Your task to perform on an android device: open sync settings in chrome Image 0: 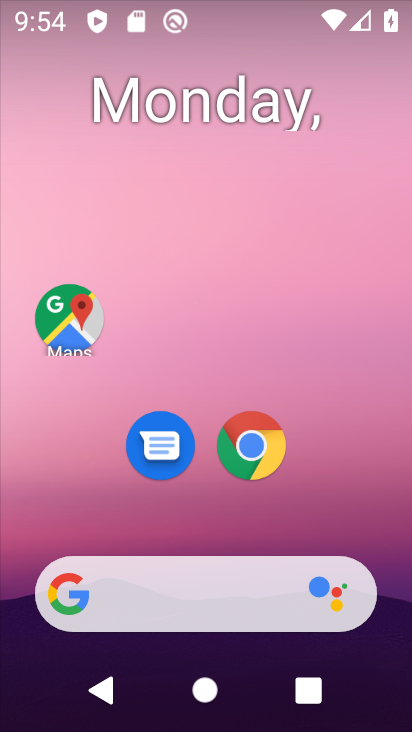
Step 0: drag from (331, 537) to (245, 100)
Your task to perform on an android device: open sync settings in chrome Image 1: 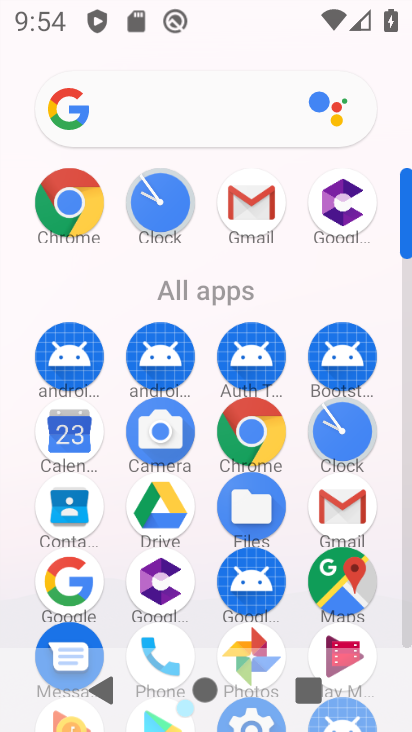
Step 1: click (260, 435)
Your task to perform on an android device: open sync settings in chrome Image 2: 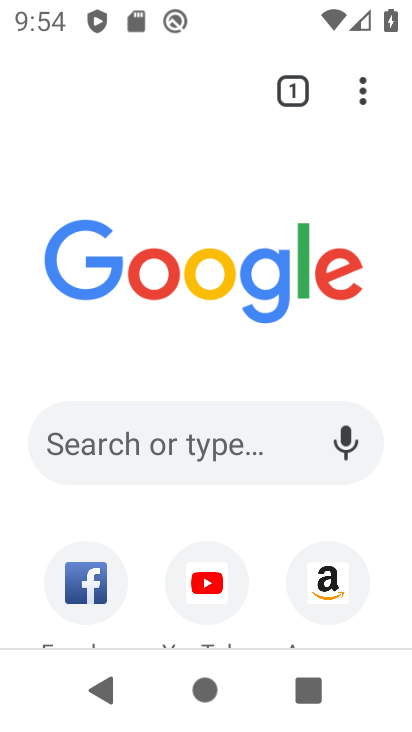
Step 2: drag from (382, 75) to (222, 474)
Your task to perform on an android device: open sync settings in chrome Image 3: 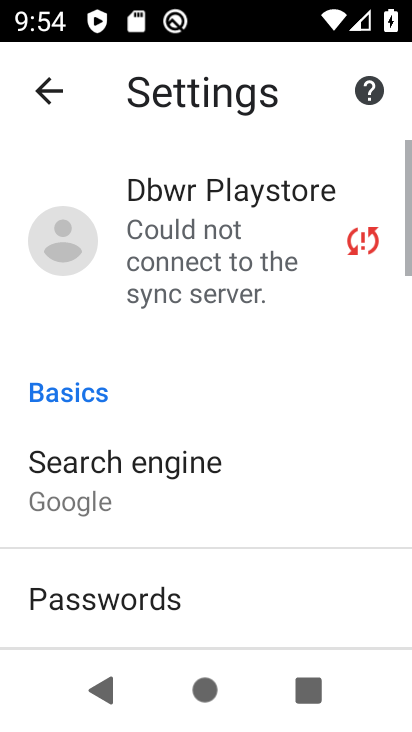
Step 3: drag from (222, 474) to (174, 105)
Your task to perform on an android device: open sync settings in chrome Image 4: 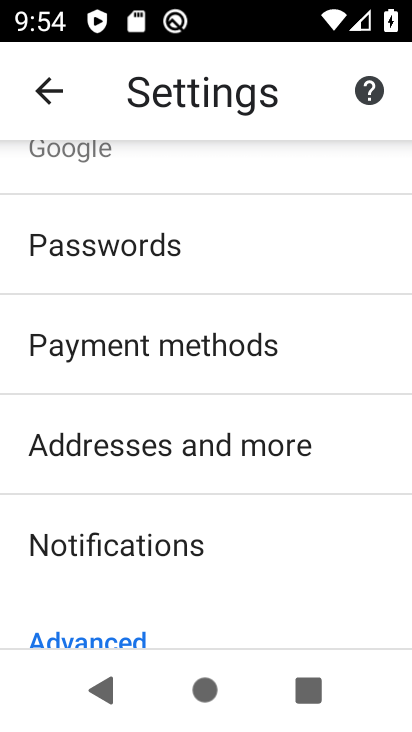
Step 4: drag from (252, 526) to (256, 184)
Your task to perform on an android device: open sync settings in chrome Image 5: 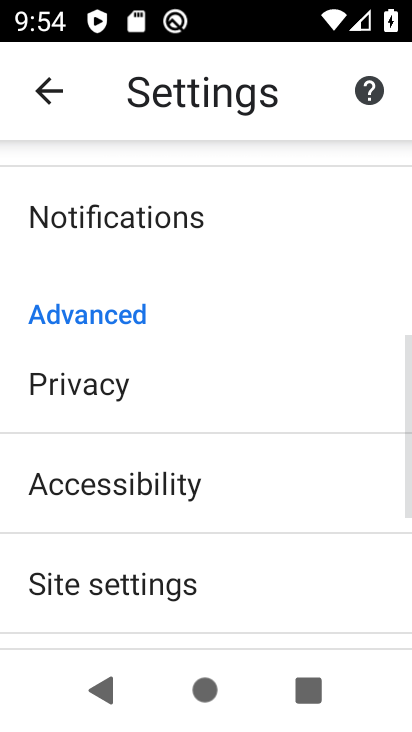
Step 5: drag from (237, 512) to (285, 193)
Your task to perform on an android device: open sync settings in chrome Image 6: 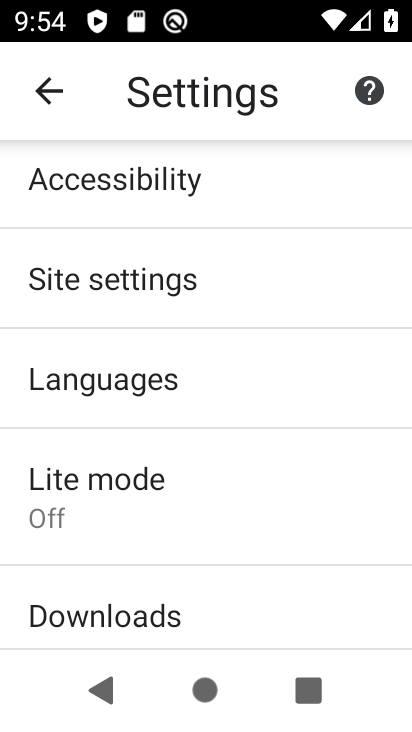
Step 6: drag from (240, 241) to (269, 677)
Your task to perform on an android device: open sync settings in chrome Image 7: 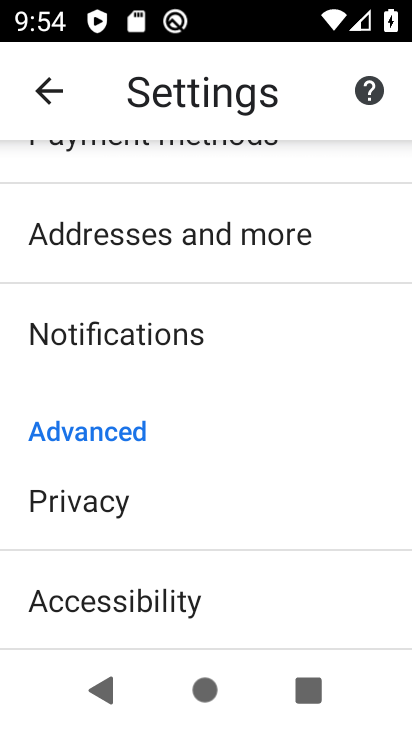
Step 7: drag from (267, 188) to (223, 601)
Your task to perform on an android device: open sync settings in chrome Image 8: 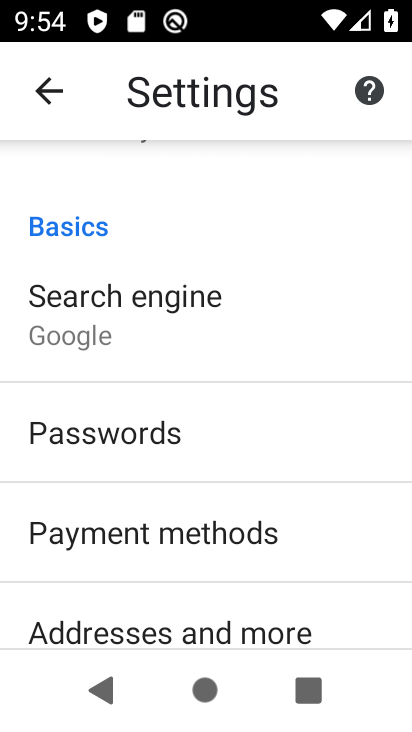
Step 8: drag from (256, 224) to (208, 586)
Your task to perform on an android device: open sync settings in chrome Image 9: 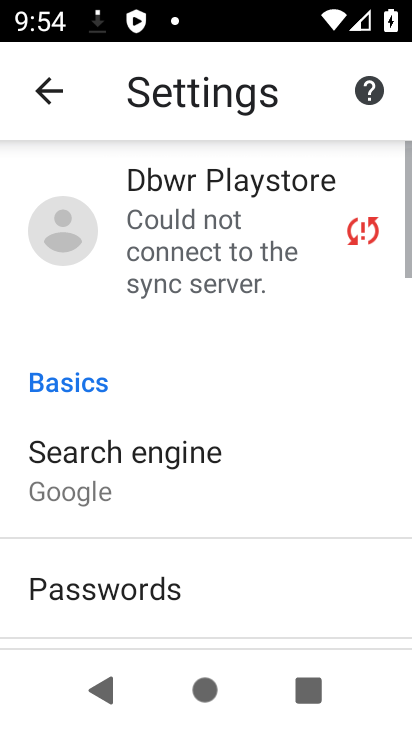
Step 9: click (243, 261)
Your task to perform on an android device: open sync settings in chrome Image 10: 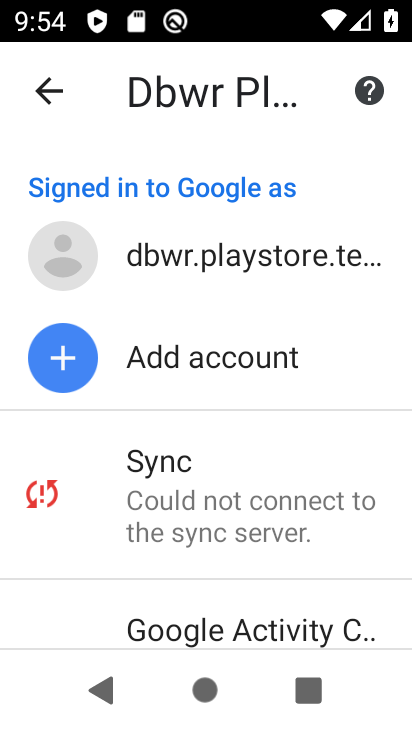
Step 10: click (181, 481)
Your task to perform on an android device: open sync settings in chrome Image 11: 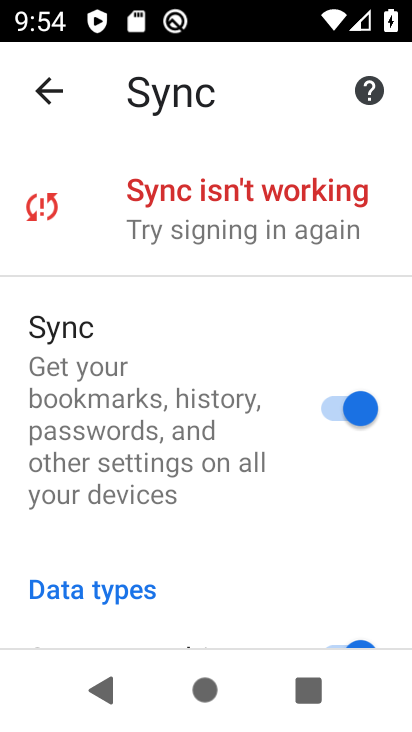
Step 11: task complete